Your task to perform on an android device: Open calendar and show me the second week of next month Image 0: 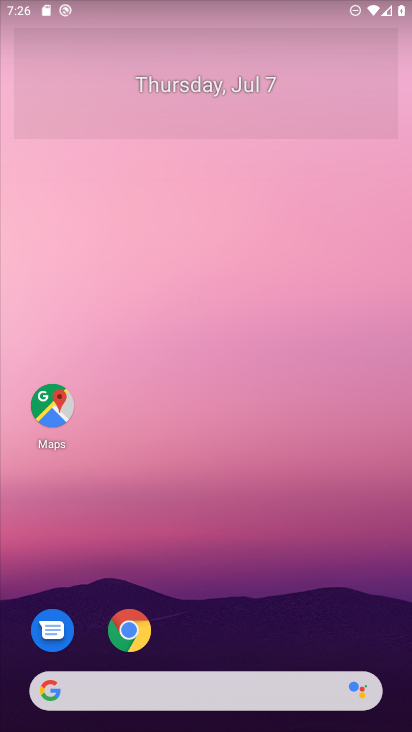
Step 0: drag from (257, 562) to (152, 125)
Your task to perform on an android device: Open calendar and show me the second week of next month Image 1: 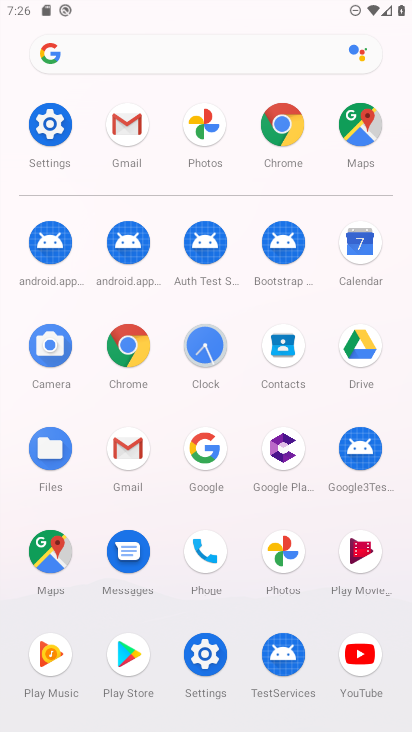
Step 1: click (355, 252)
Your task to perform on an android device: Open calendar and show me the second week of next month Image 2: 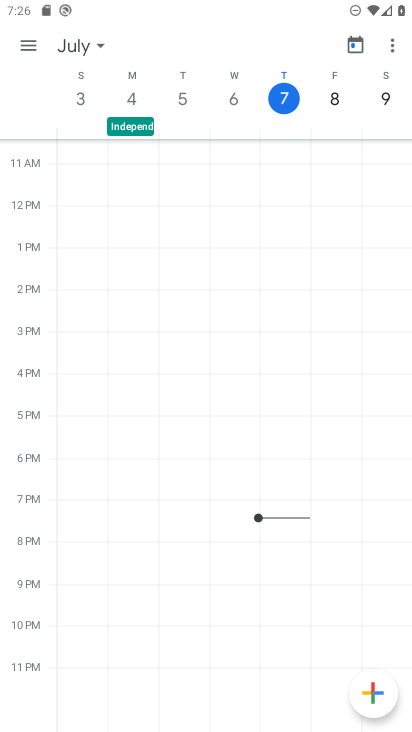
Step 2: click (22, 37)
Your task to perform on an android device: Open calendar and show me the second week of next month Image 3: 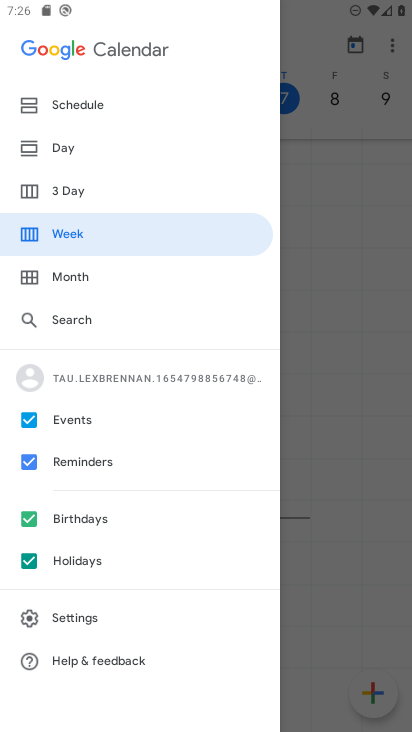
Step 3: click (92, 234)
Your task to perform on an android device: Open calendar and show me the second week of next month Image 4: 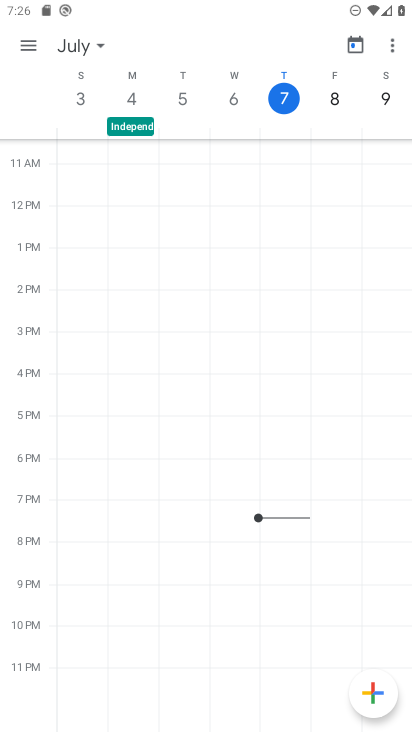
Step 4: click (98, 42)
Your task to perform on an android device: Open calendar and show me the second week of next month Image 5: 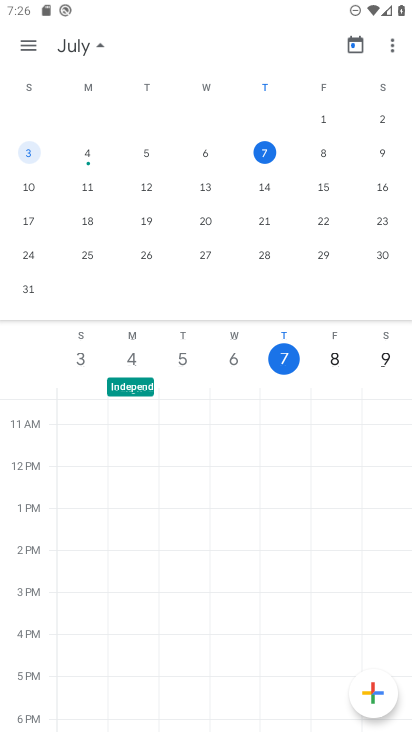
Step 5: drag from (377, 201) to (7, 151)
Your task to perform on an android device: Open calendar and show me the second week of next month Image 6: 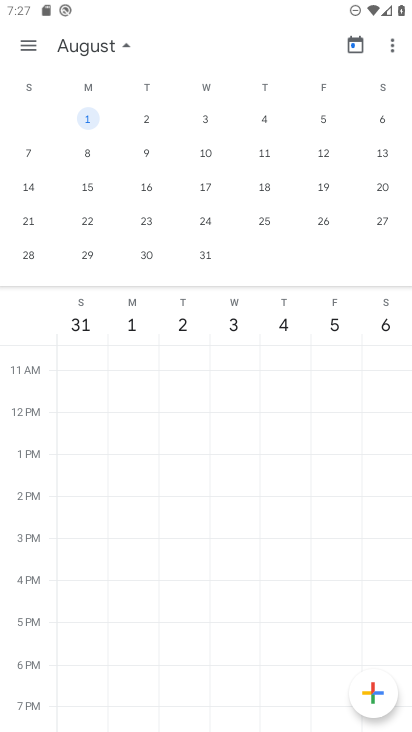
Step 6: click (88, 150)
Your task to perform on an android device: Open calendar and show me the second week of next month Image 7: 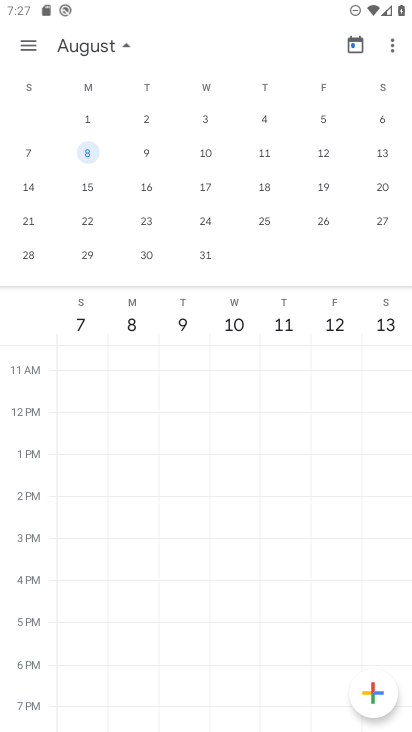
Step 7: task complete